Your task to perform on an android device: What's on my calendar today? Image 0: 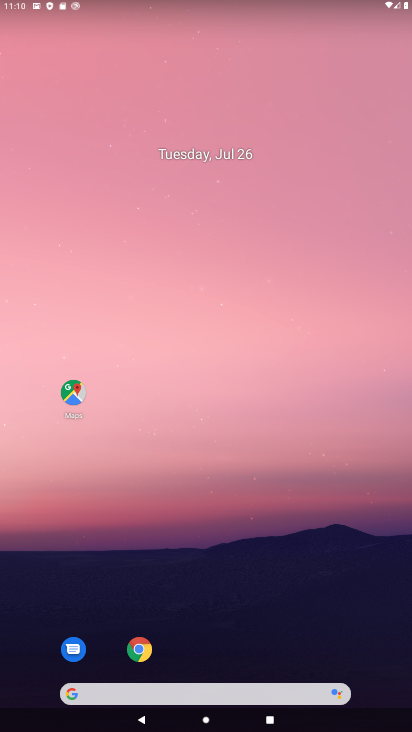
Step 0: drag from (220, 564) to (106, 175)
Your task to perform on an android device: What's on my calendar today? Image 1: 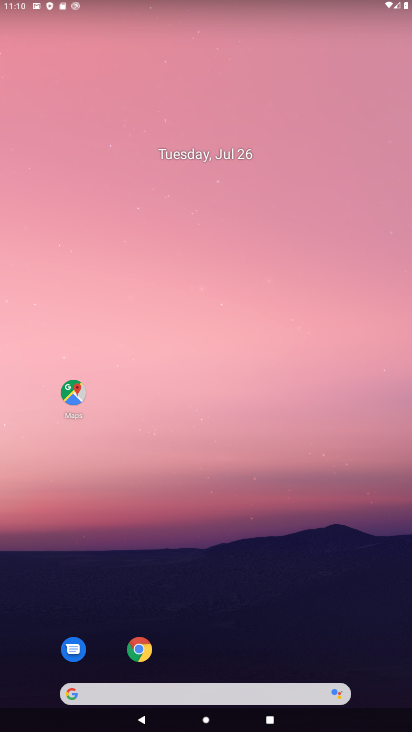
Step 1: drag from (255, 467) to (212, 226)
Your task to perform on an android device: What's on my calendar today? Image 2: 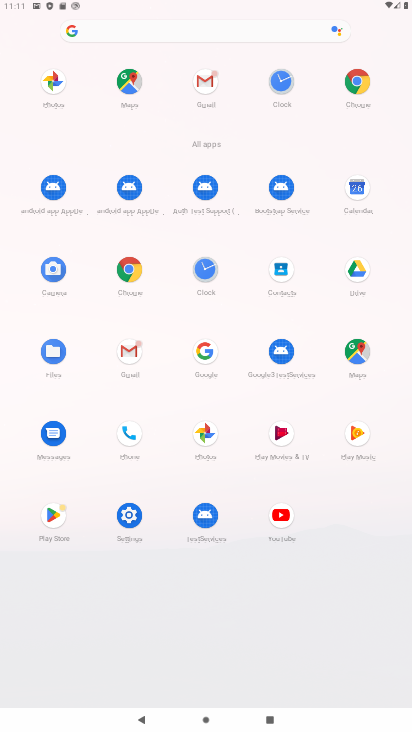
Step 2: click (359, 184)
Your task to perform on an android device: What's on my calendar today? Image 3: 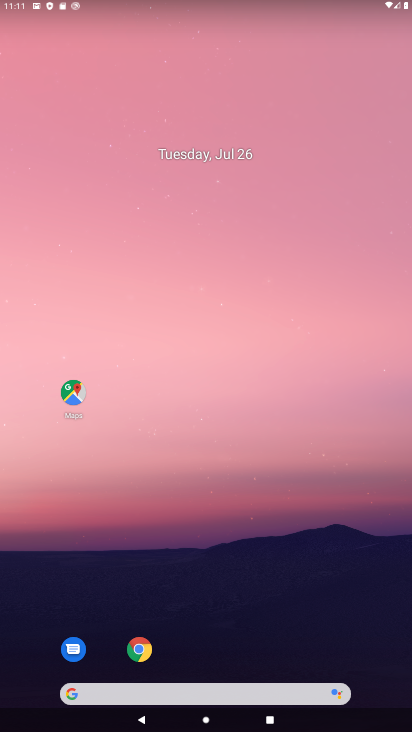
Step 3: drag from (217, 524) to (181, 78)
Your task to perform on an android device: What's on my calendar today? Image 4: 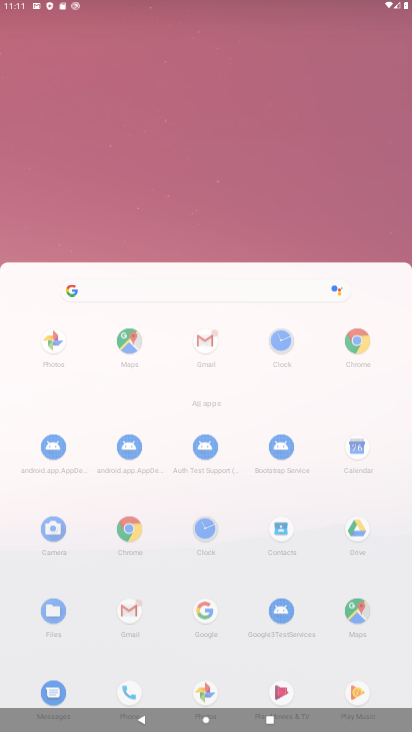
Step 4: drag from (268, 446) to (249, 53)
Your task to perform on an android device: What's on my calendar today? Image 5: 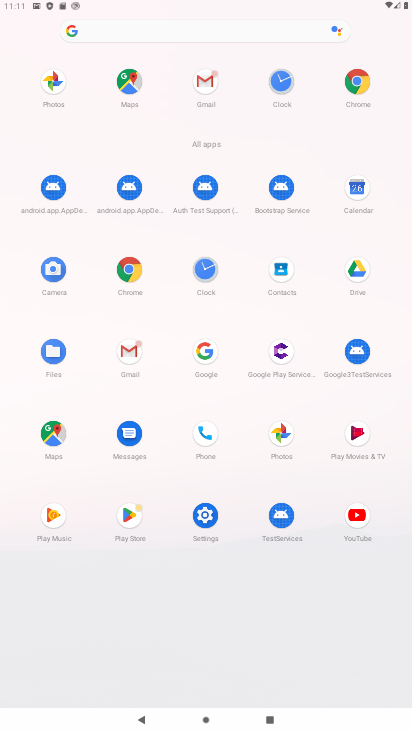
Step 5: click (350, 191)
Your task to perform on an android device: What's on my calendar today? Image 6: 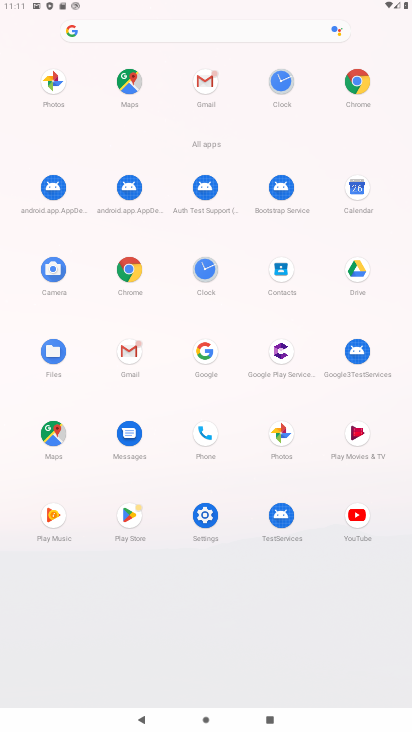
Step 6: click (357, 189)
Your task to perform on an android device: What's on my calendar today? Image 7: 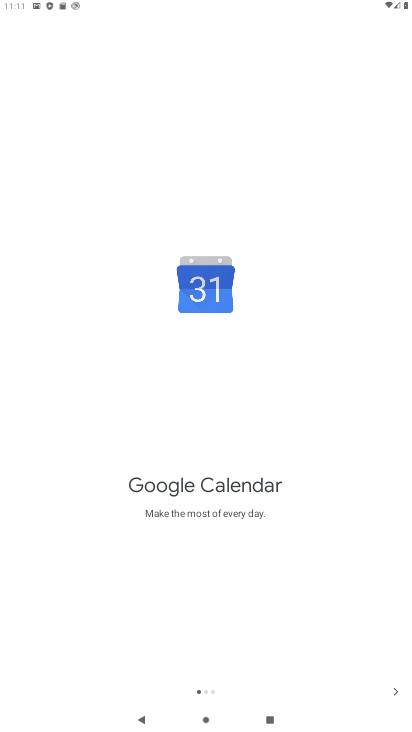
Step 7: click (406, 684)
Your task to perform on an android device: What's on my calendar today? Image 8: 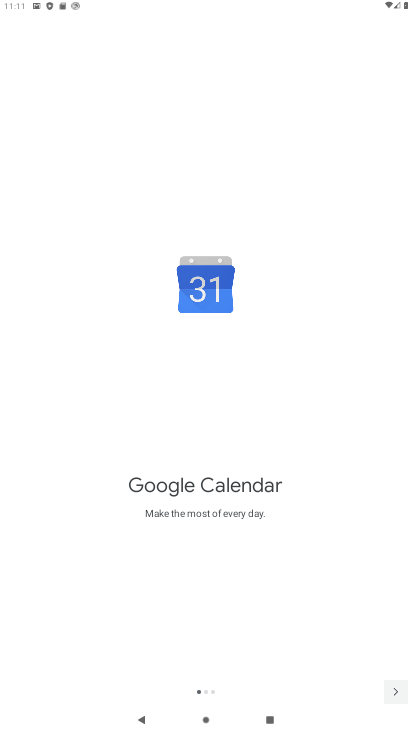
Step 8: click (395, 692)
Your task to perform on an android device: What's on my calendar today? Image 9: 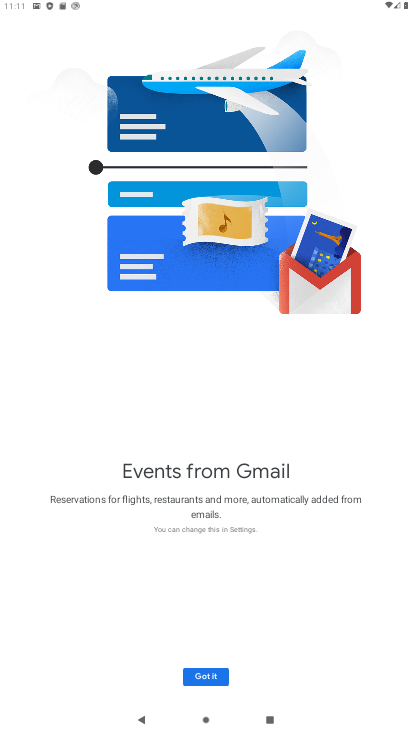
Step 9: click (199, 674)
Your task to perform on an android device: What's on my calendar today? Image 10: 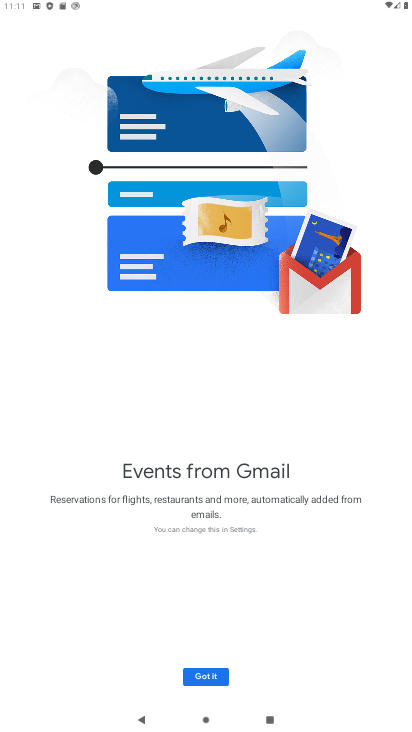
Step 10: click (199, 674)
Your task to perform on an android device: What's on my calendar today? Image 11: 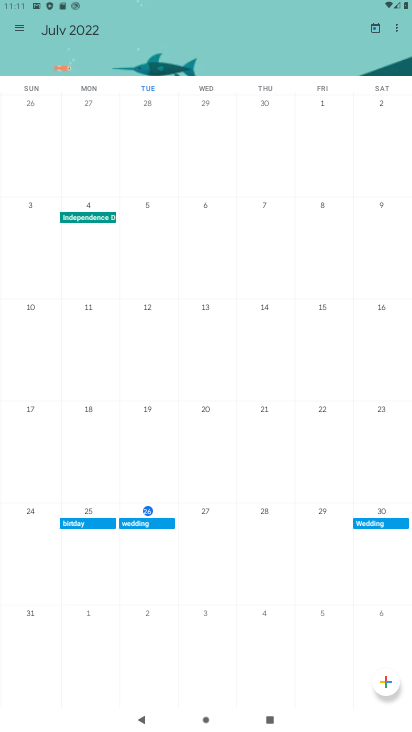
Step 11: task complete